Your task to perform on an android device: Do I have any events today? Image 0: 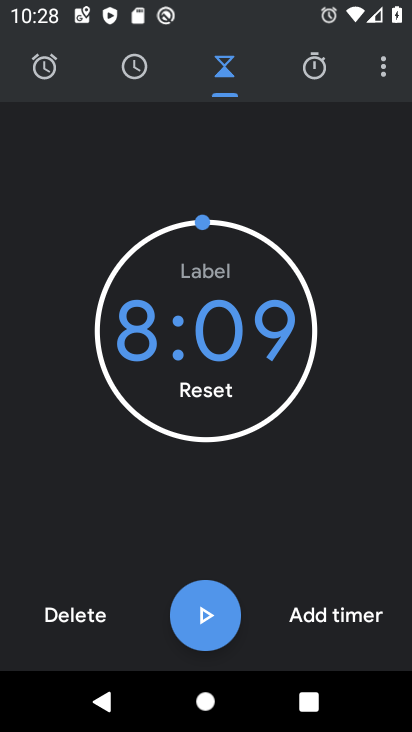
Step 0: press home button
Your task to perform on an android device: Do I have any events today? Image 1: 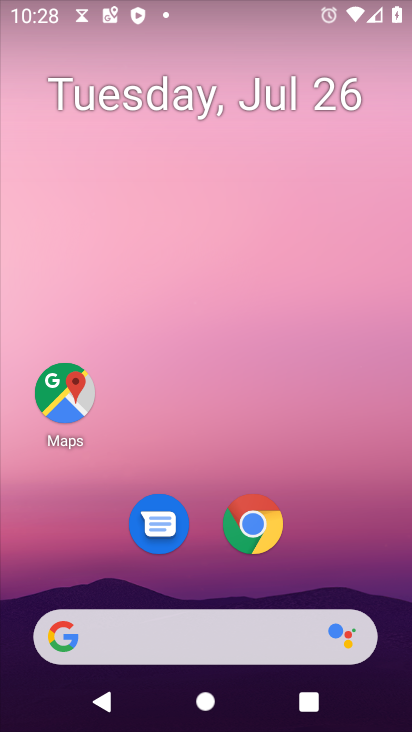
Step 1: drag from (156, 639) to (250, 53)
Your task to perform on an android device: Do I have any events today? Image 2: 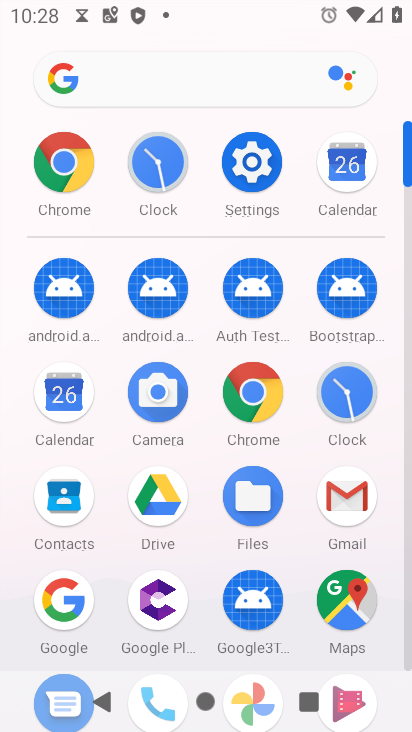
Step 2: click (61, 394)
Your task to perform on an android device: Do I have any events today? Image 3: 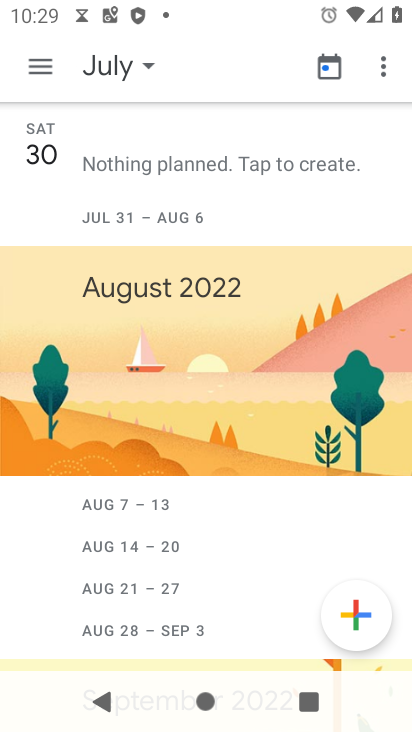
Step 3: click (98, 67)
Your task to perform on an android device: Do I have any events today? Image 4: 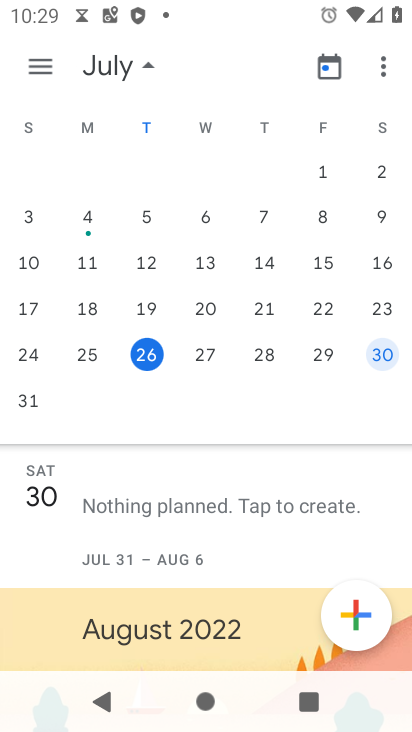
Step 4: click (152, 356)
Your task to perform on an android device: Do I have any events today? Image 5: 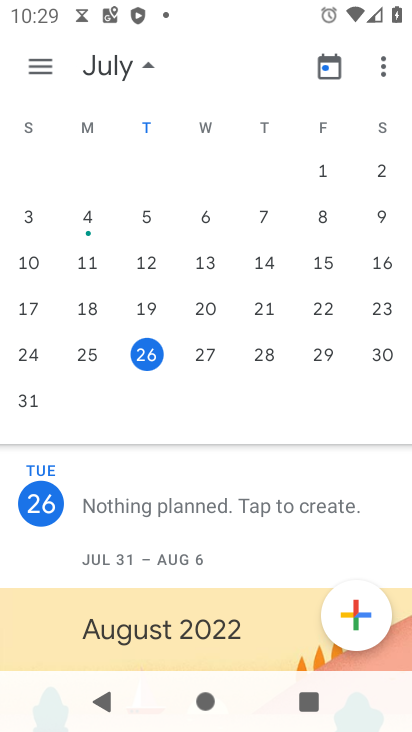
Step 5: task complete